Your task to perform on an android device: Search for Italian restaurants on Maps Image 0: 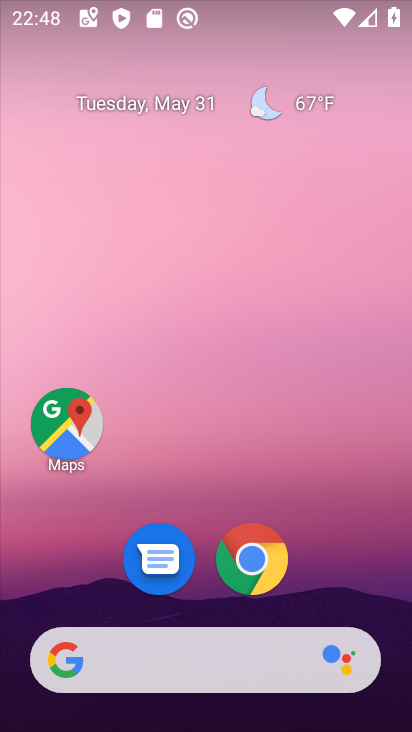
Step 0: click (65, 425)
Your task to perform on an android device: Search for Italian restaurants on Maps Image 1: 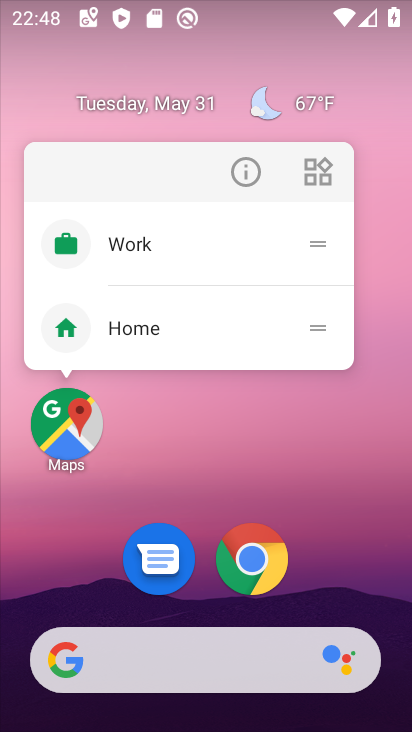
Step 1: click (72, 431)
Your task to perform on an android device: Search for Italian restaurants on Maps Image 2: 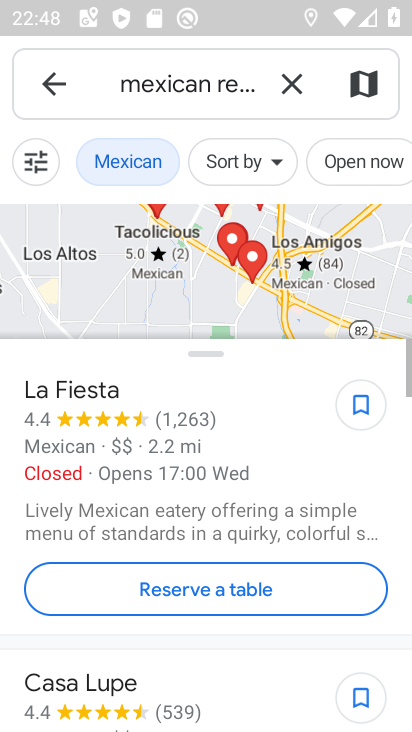
Step 2: click (285, 81)
Your task to perform on an android device: Search for Italian restaurants on Maps Image 3: 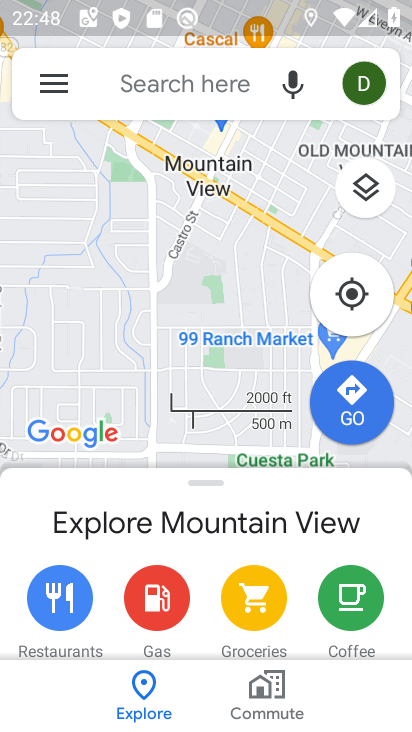
Step 3: click (162, 87)
Your task to perform on an android device: Search for Italian restaurants on Maps Image 4: 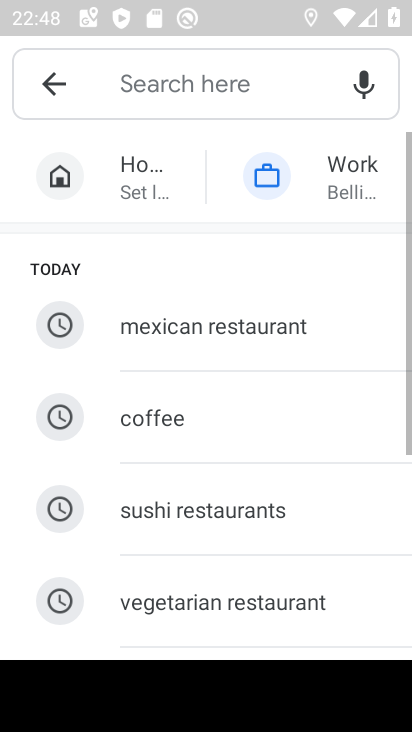
Step 4: drag from (234, 455) to (222, 210)
Your task to perform on an android device: Search for Italian restaurants on Maps Image 5: 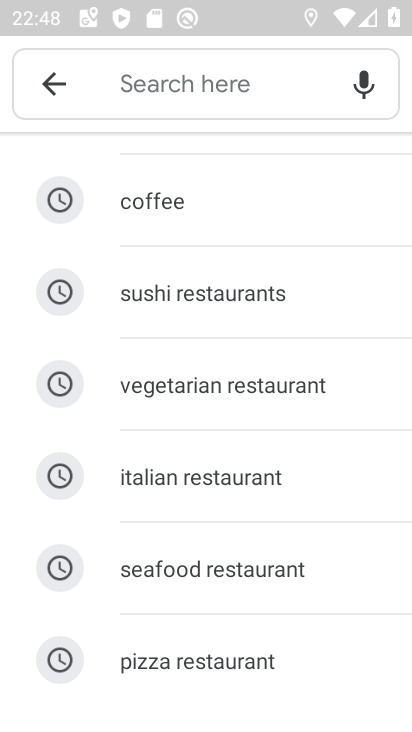
Step 5: click (223, 485)
Your task to perform on an android device: Search for Italian restaurants on Maps Image 6: 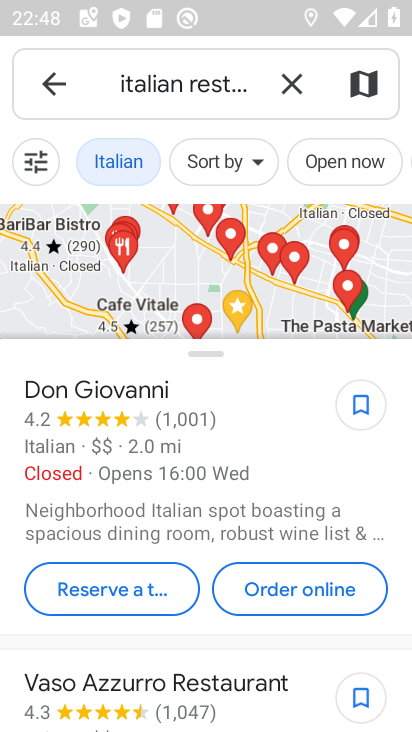
Step 6: task complete